Your task to perform on an android device: open chrome privacy settings Image 0: 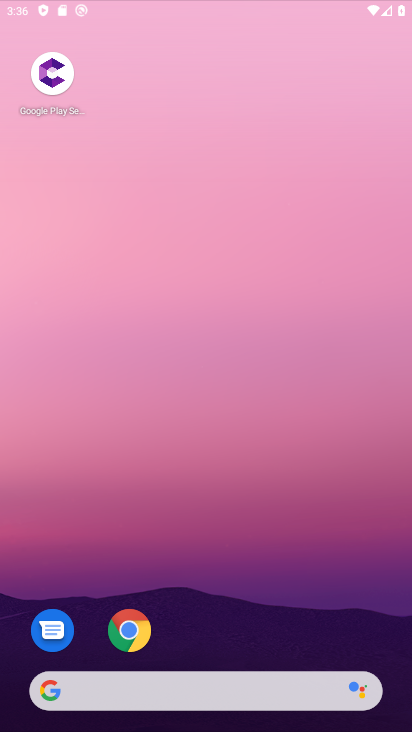
Step 0: drag from (264, 457) to (199, 37)
Your task to perform on an android device: open chrome privacy settings Image 1: 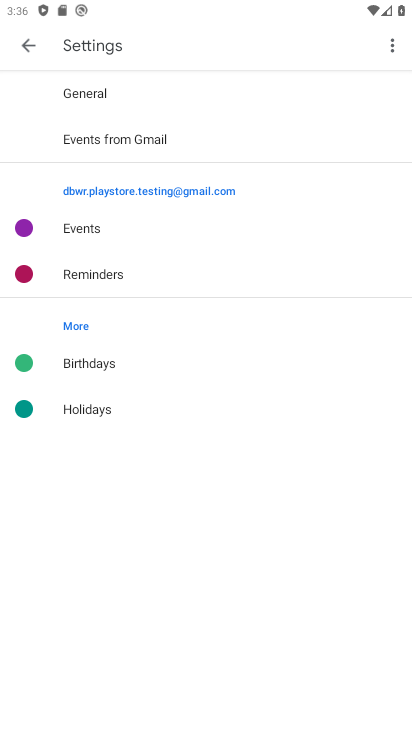
Step 1: press back button
Your task to perform on an android device: open chrome privacy settings Image 2: 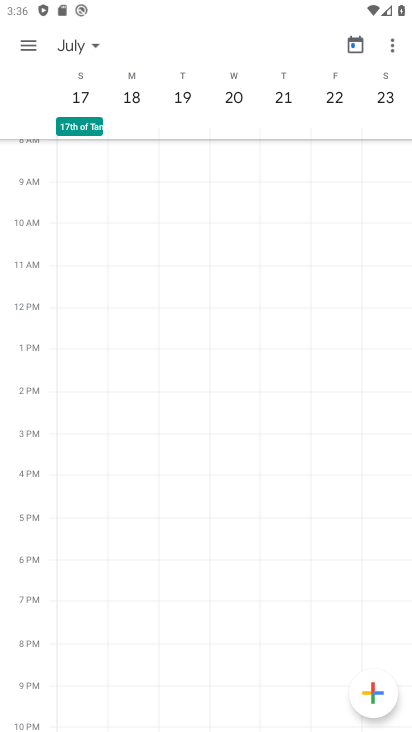
Step 2: press back button
Your task to perform on an android device: open chrome privacy settings Image 3: 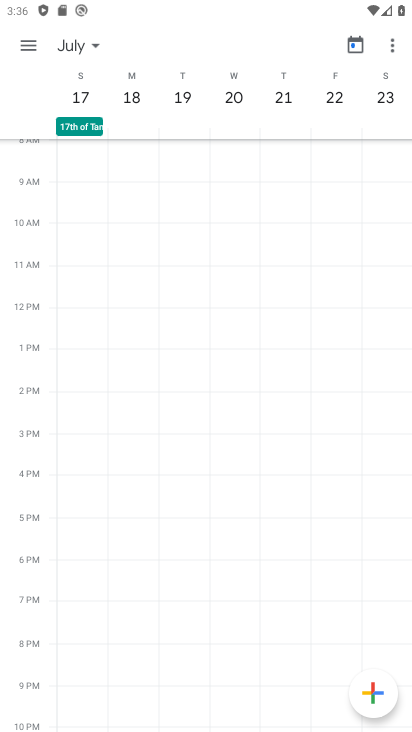
Step 3: press home button
Your task to perform on an android device: open chrome privacy settings Image 4: 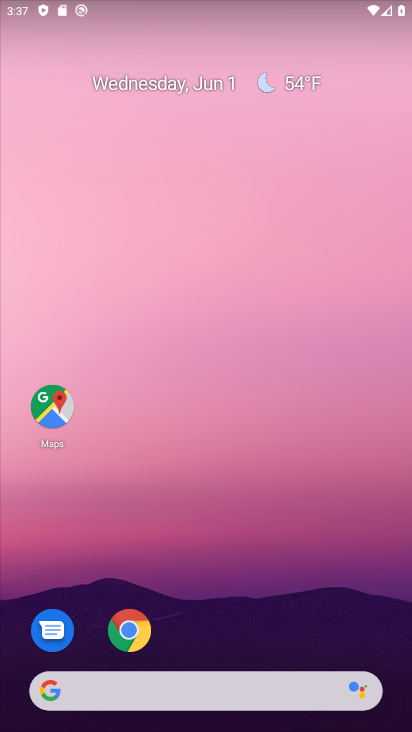
Step 4: drag from (295, 570) to (195, 5)
Your task to perform on an android device: open chrome privacy settings Image 5: 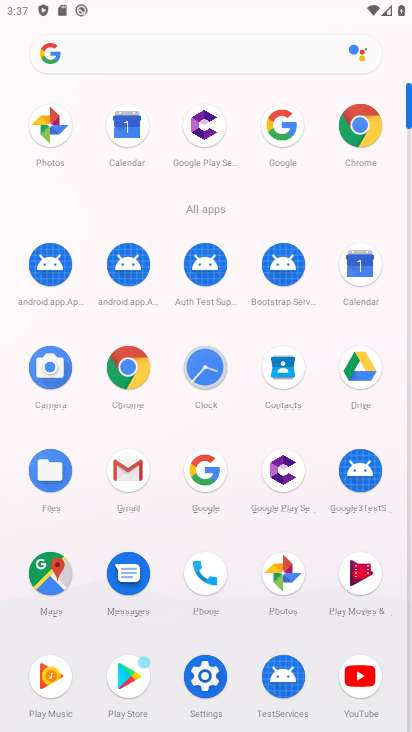
Step 5: drag from (12, 580) to (20, 263)
Your task to perform on an android device: open chrome privacy settings Image 6: 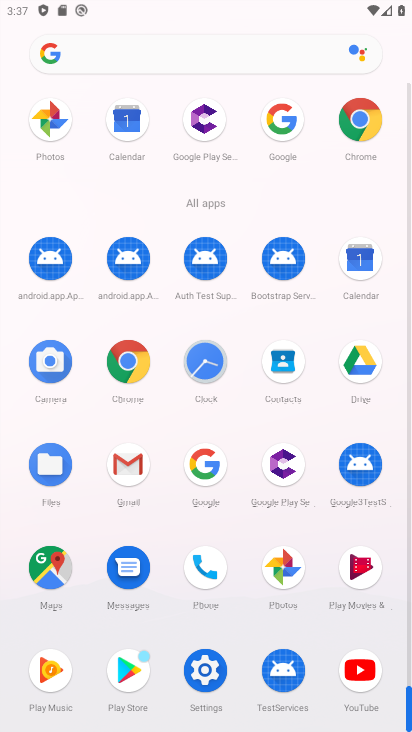
Step 6: click (126, 358)
Your task to perform on an android device: open chrome privacy settings Image 7: 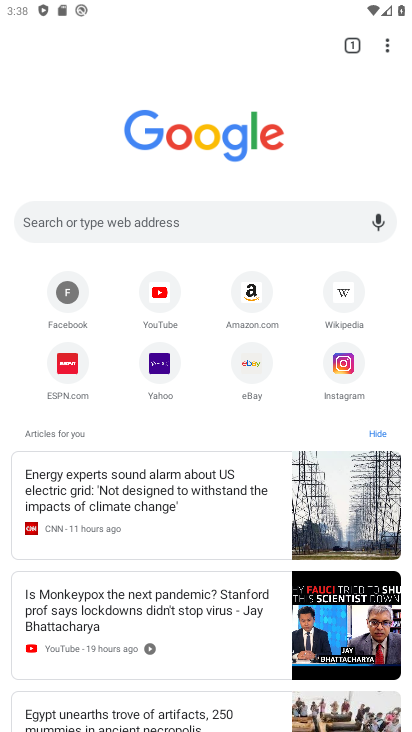
Step 7: drag from (386, 34) to (222, 373)
Your task to perform on an android device: open chrome privacy settings Image 8: 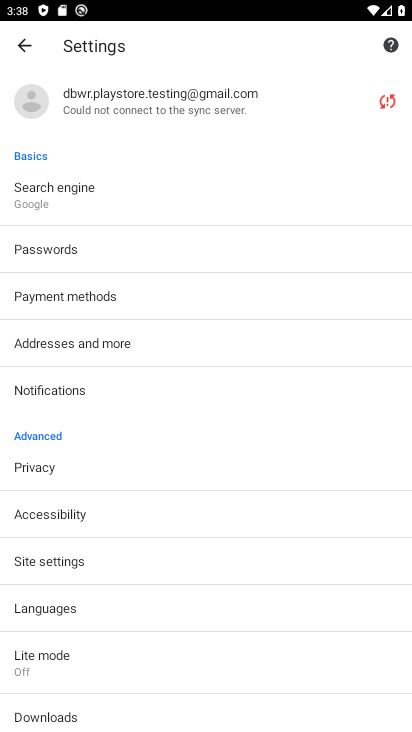
Step 8: click (56, 466)
Your task to perform on an android device: open chrome privacy settings Image 9: 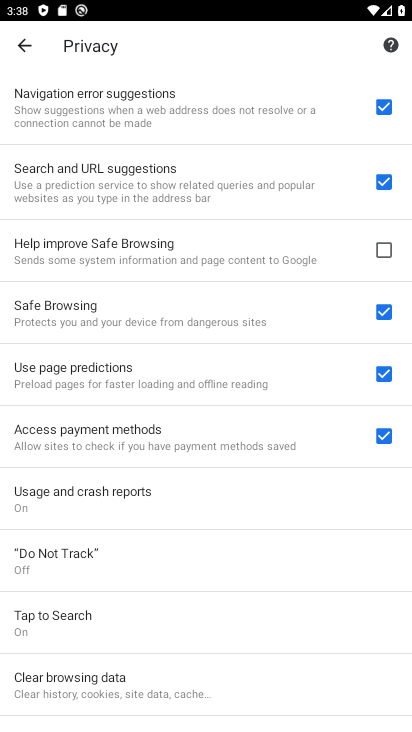
Step 9: task complete